Your task to perform on an android device: Open settings Image 0: 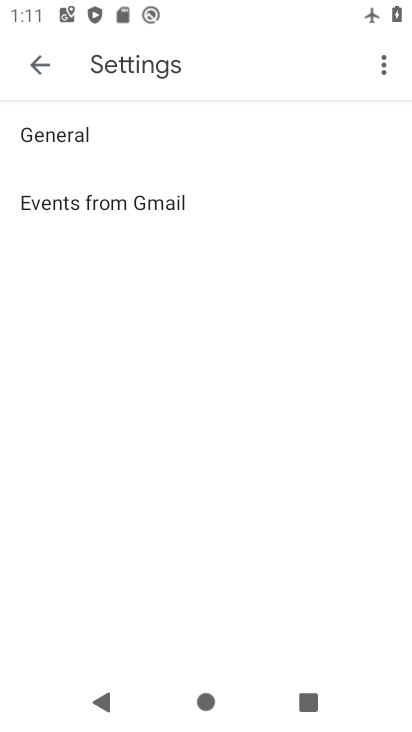
Step 0: press home button
Your task to perform on an android device: Open settings Image 1: 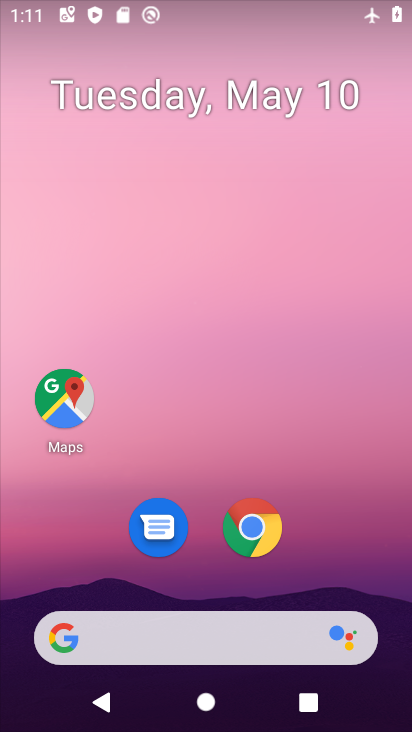
Step 1: drag from (89, 573) to (143, 194)
Your task to perform on an android device: Open settings Image 2: 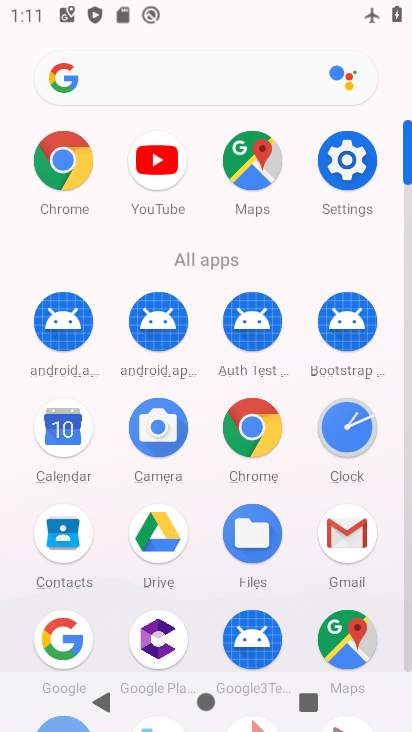
Step 2: click (351, 161)
Your task to perform on an android device: Open settings Image 3: 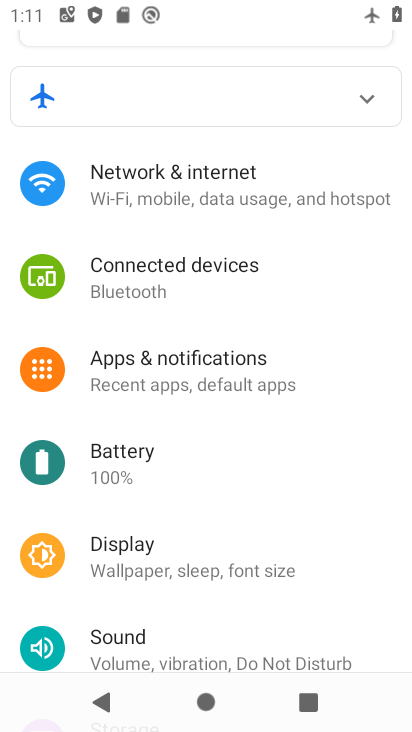
Step 3: task complete